Your task to perform on an android device: Empty the shopping cart on newegg.com. Image 0: 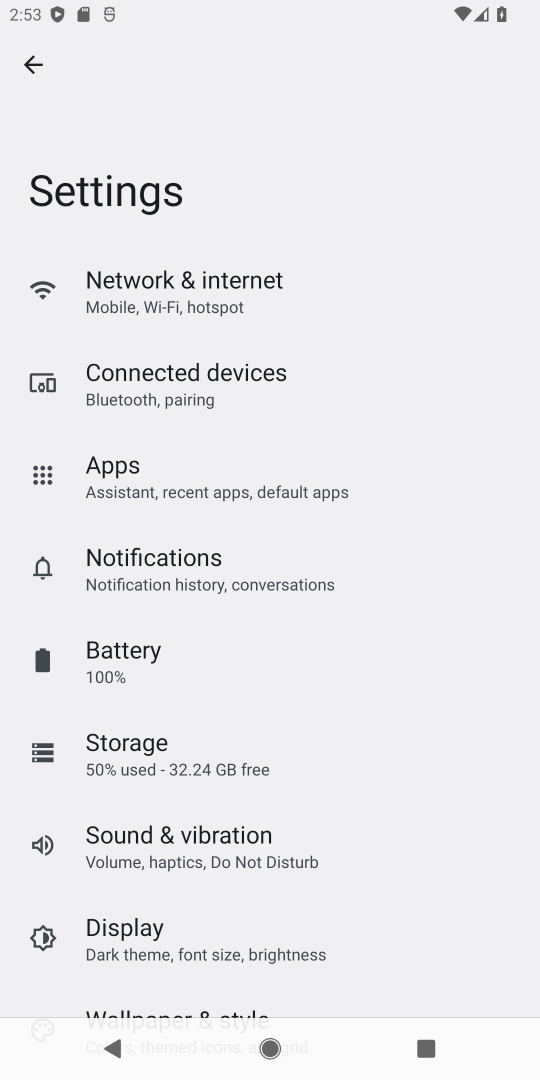
Step 0: press home button
Your task to perform on an android device: Empty the shopping cart on newegg.com. Image 1: 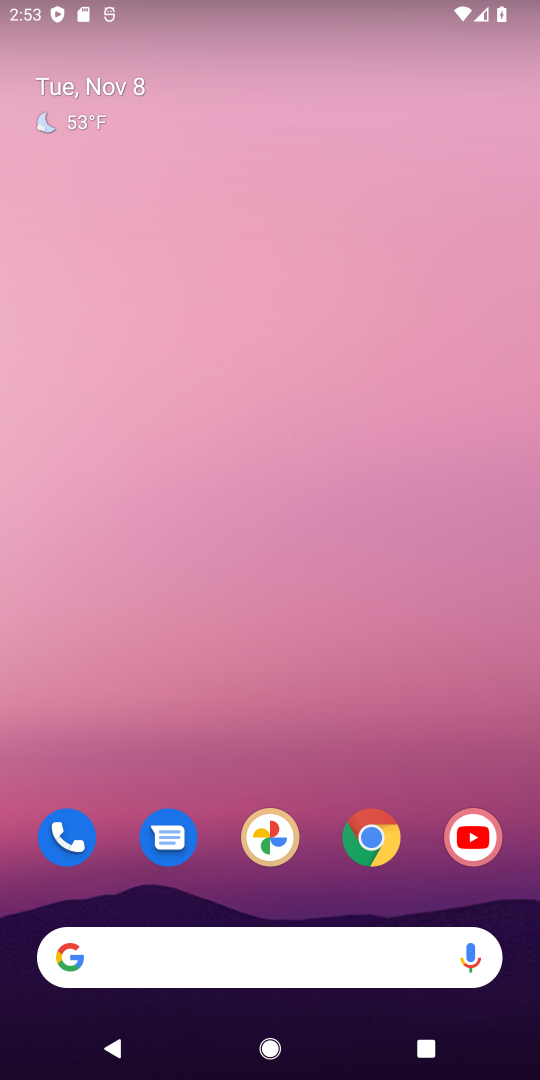
Step 1: click (384, 838)
Your task to perform on an android device: Empty the shopping cart on newegg.com. Image 2: 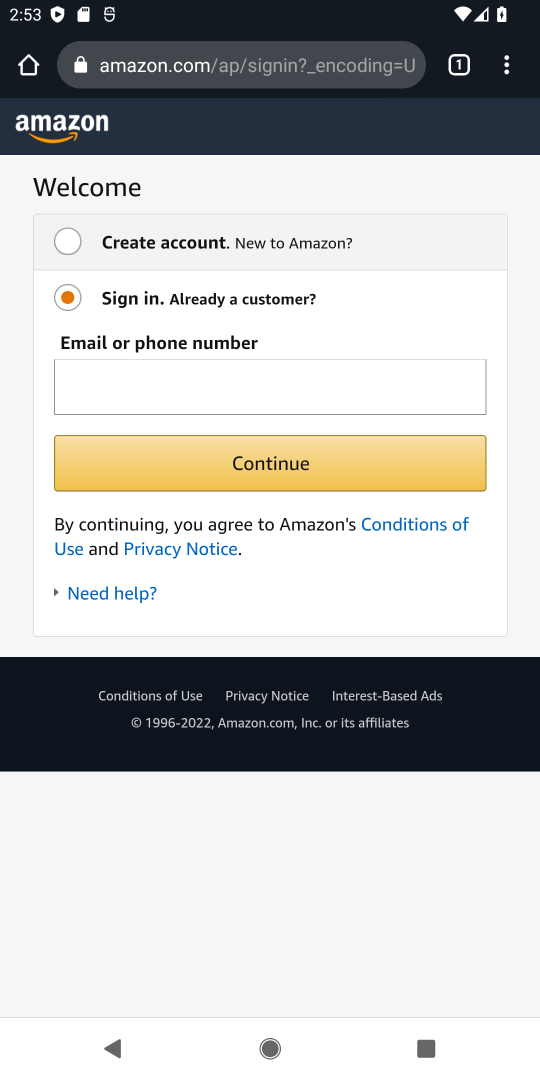
Step 2: click (200, 65)
Your task to perform on an android device: Empty the shopping cart on newegg.com. Image 3: 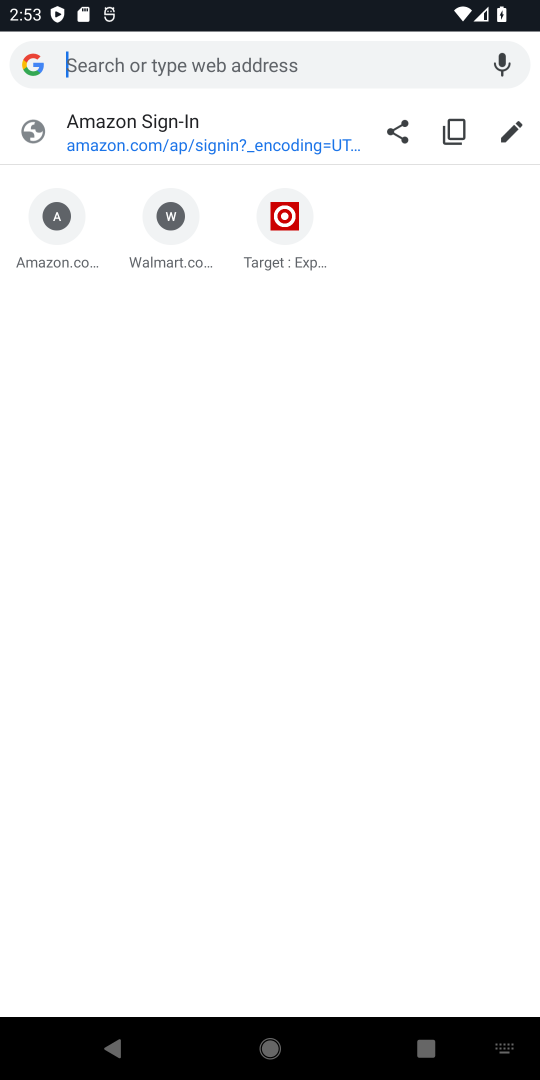
Step 3: type "newegg"
Your task to perform on an android device: Empty the shopping cart on newegg.com. Image 4: 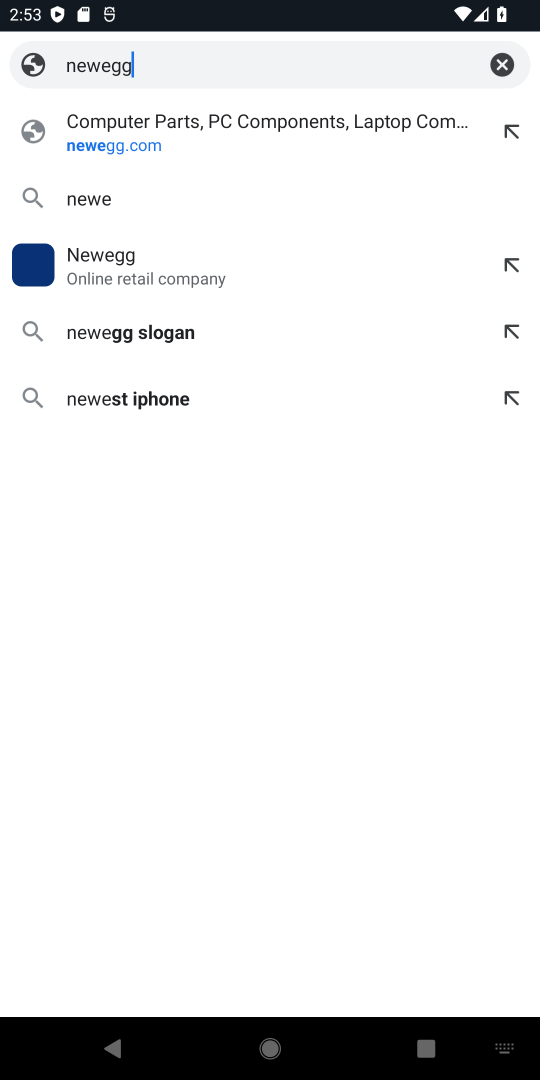
Step 4: type ""
Your task to perform on an android device: Empty the shopping cart on newegg.com. Image 5: 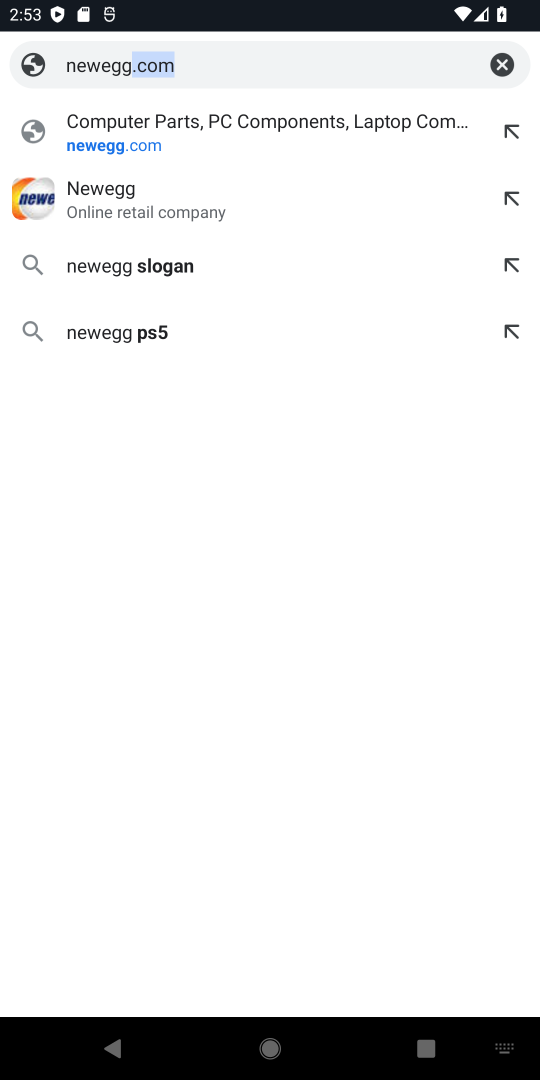
Step 5: click (89, 211)
Your task to perform on an android device: Empty the shopping cart on newegg.com. Image 6: 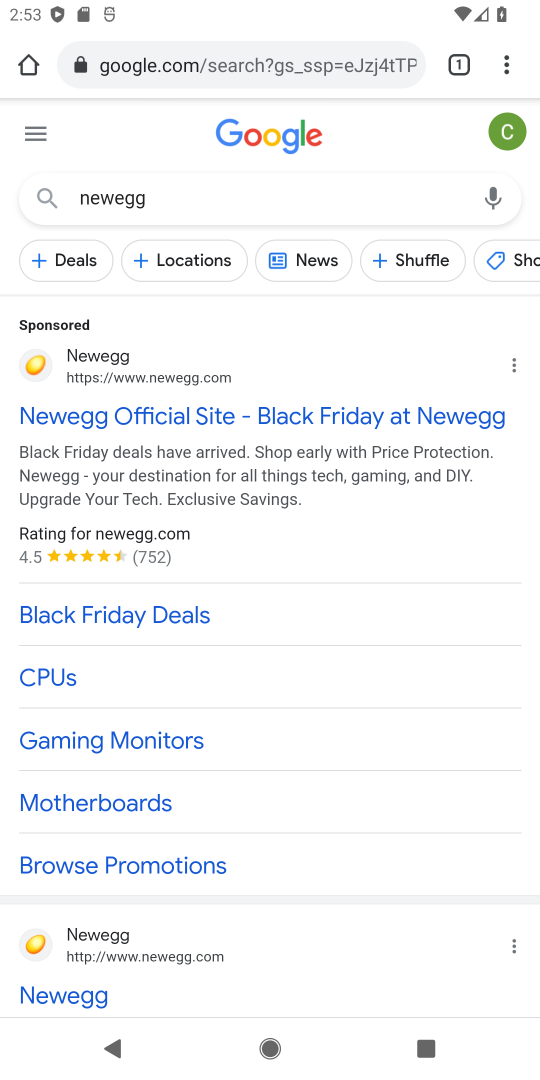
Step 6: click (168, 424)
Your task to perform on an android device: Empty the shopping cart on newegg.com. Image 7: 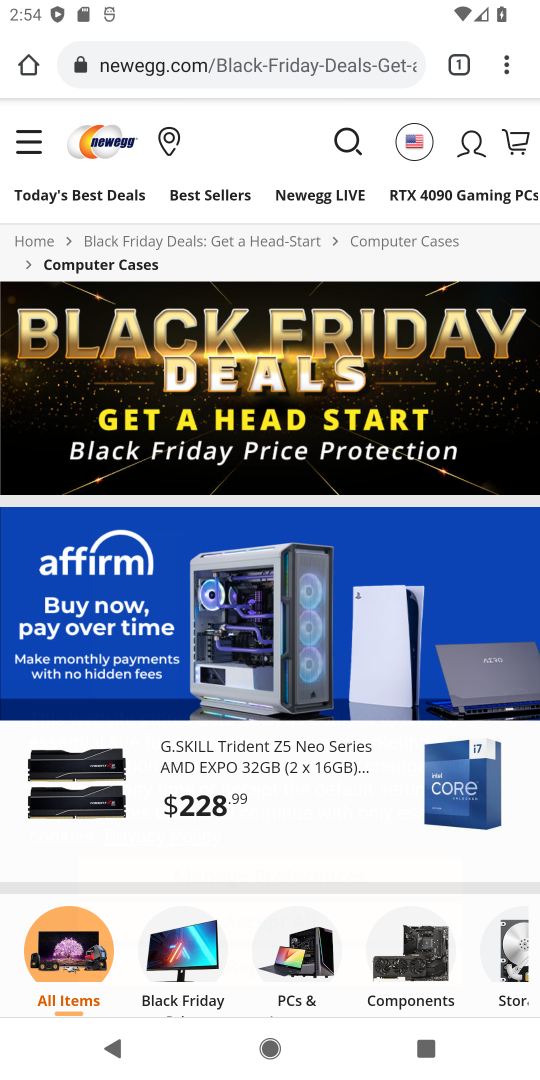
Step 7: click (350, 144)
Your task to perform on an android device: Empty the shopping cart on newegg.com. Image 8: 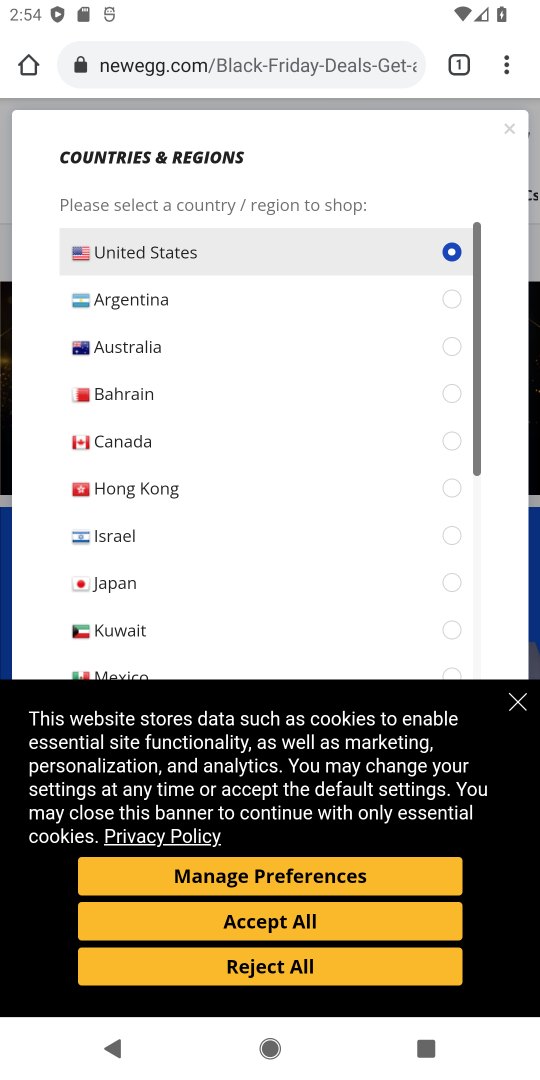
Step 8: click (510, 127)
Your task to perform on an android device: Empty the shopping cart on newegg.com. Image 9: 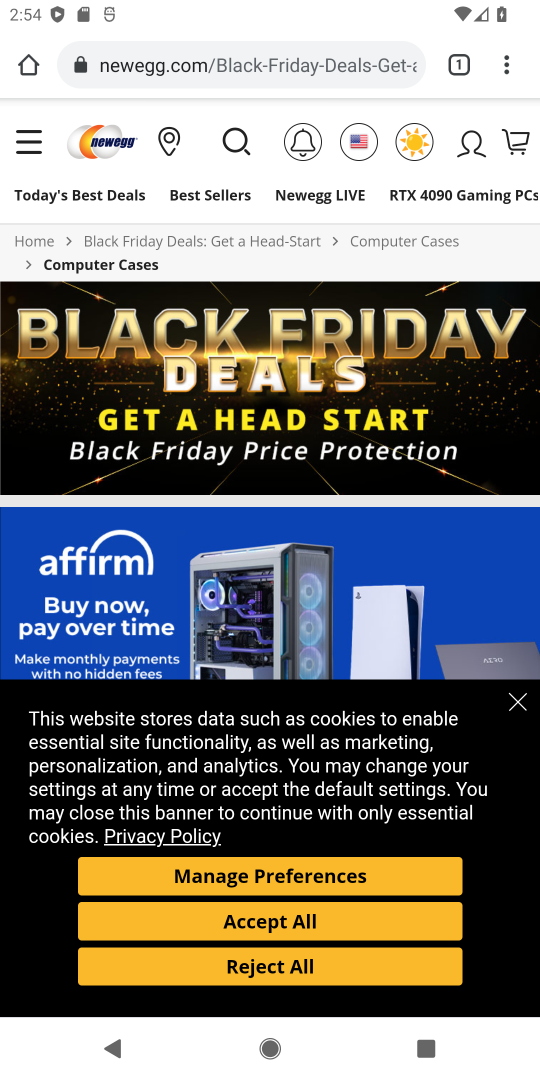
Step 9: click (223, 134)
Your task to perform on an android device: Empty the shopping cart on newegg.com. Image 10: 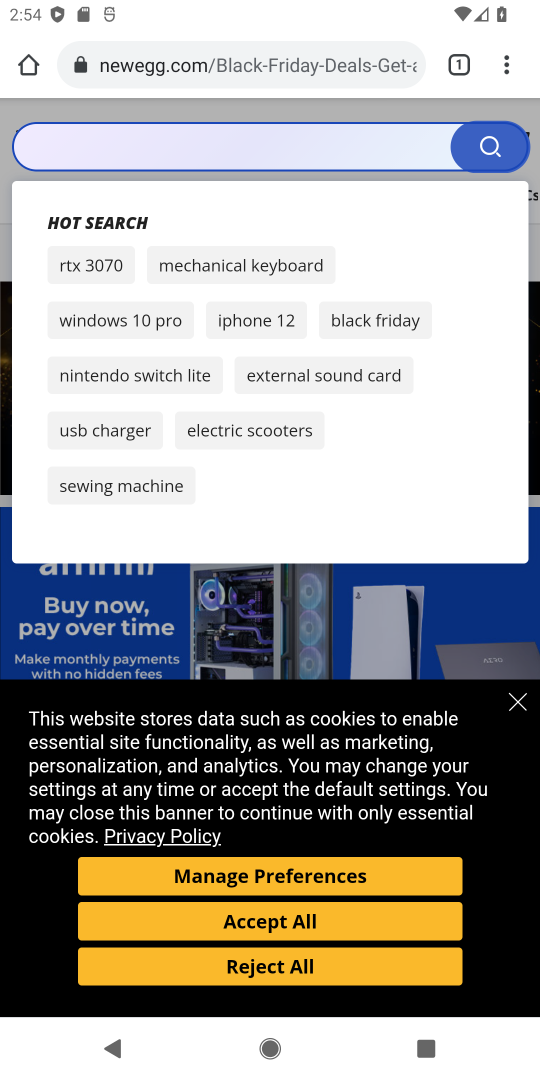
Step 10: click (206, 138)
Your task to perform on an android device: Empty the shopping cart on newegg.com. Image 11: 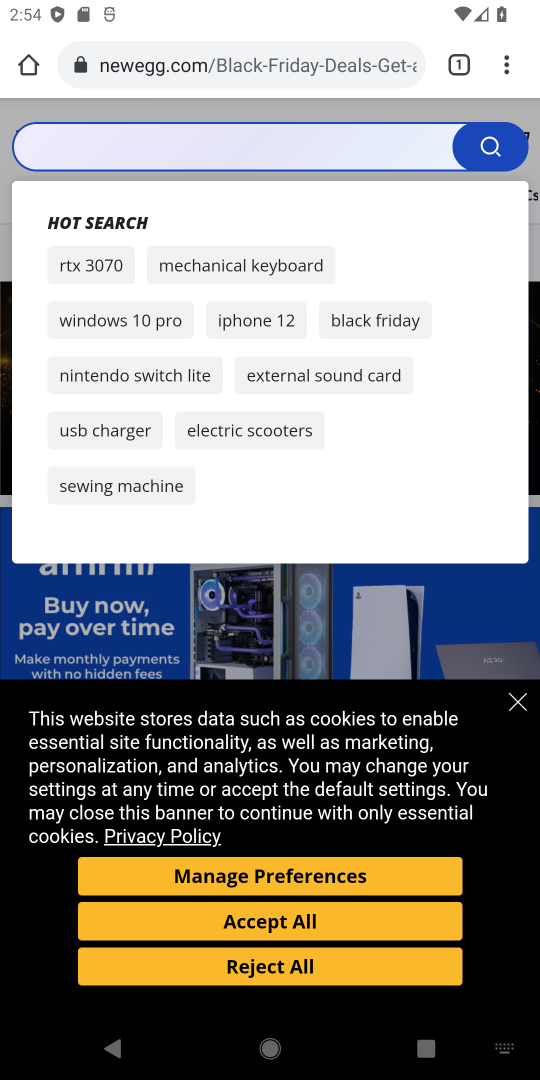
Step 11: click (515, 703)
Your task to perform on an android device: Empty the shopping cart on newegg.com. Image 12: 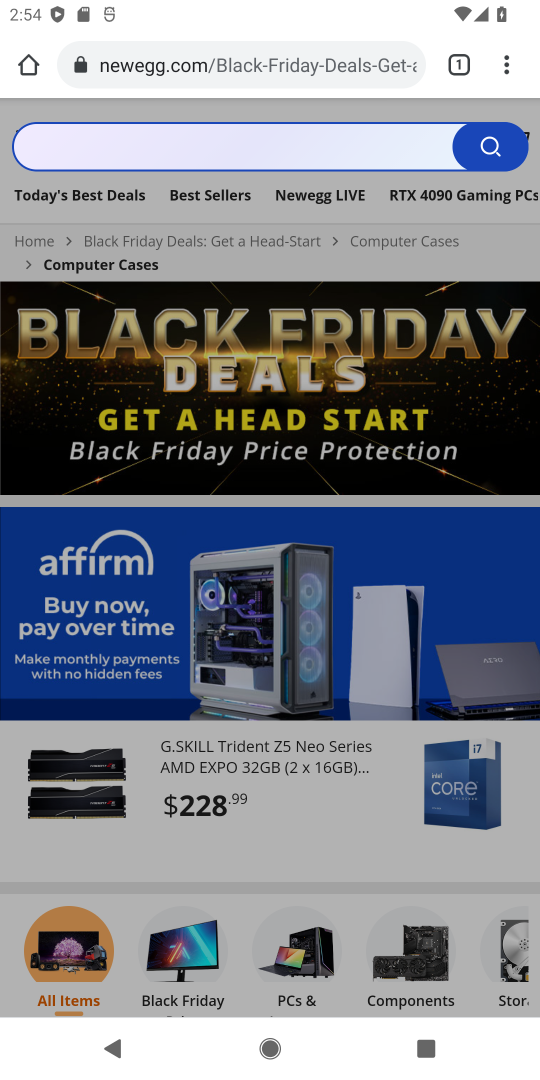
Step 12: press back button
Your task to perform on an android device: Empty the shopping cart on newegg.com. Image 13: 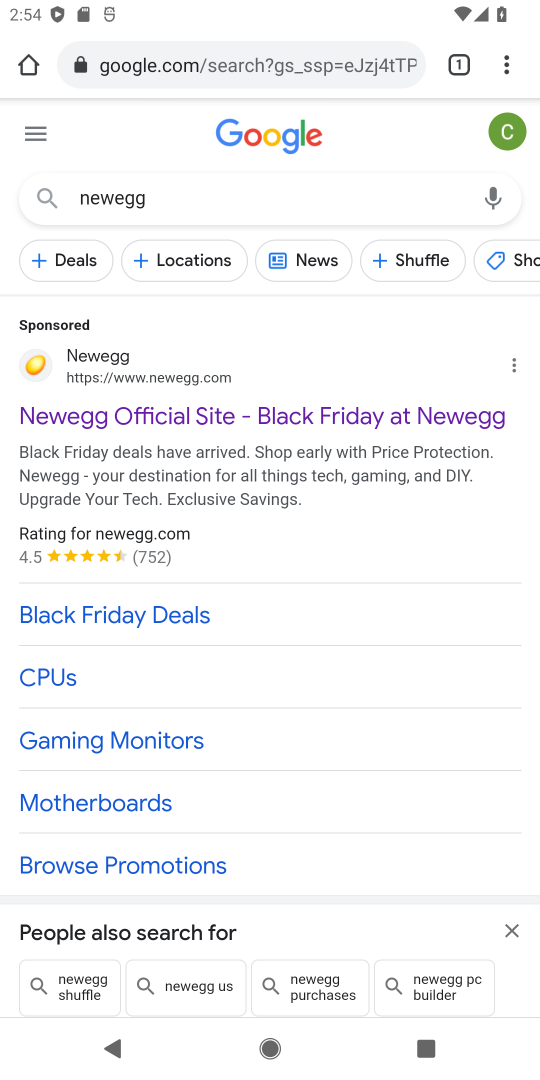
Step 13: drag from (350, 770) to (237, 258)
Your task to perform on an android device: Empty the shopping cart on newegg.com. Image 14: 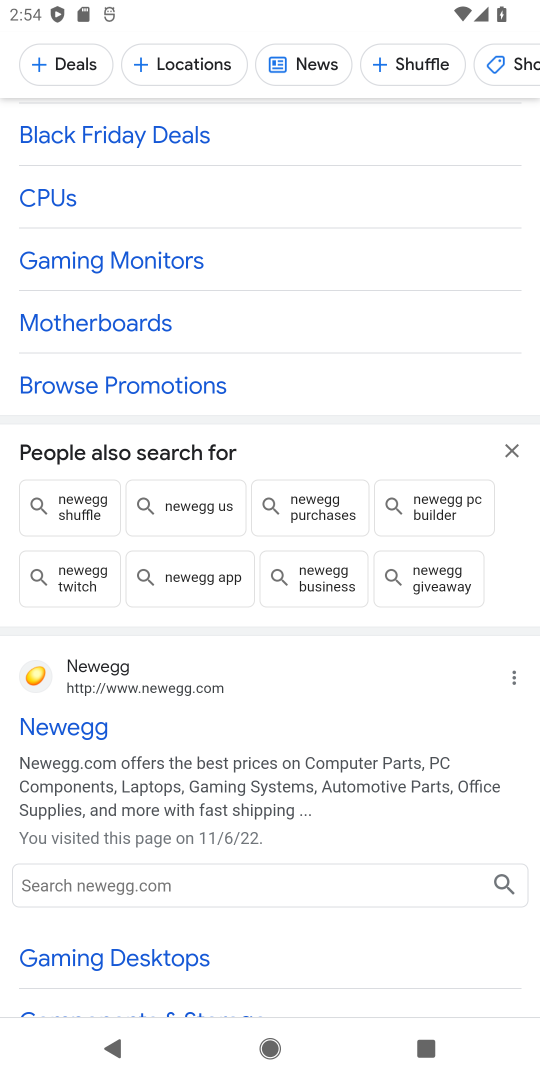
Step 14: click (68, 728)
Your task to perform on an android device: Empty the shopping cart on newegg.com. Image 15: 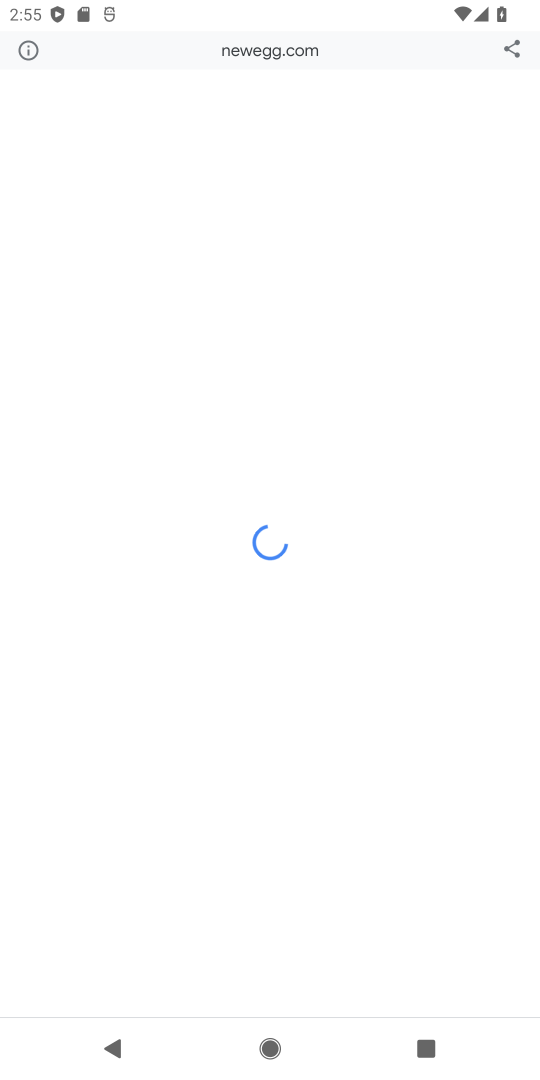
Step 15: press home button
Your task to perform on an android device: Empty the shopping cart on newegg.com. Image 16: 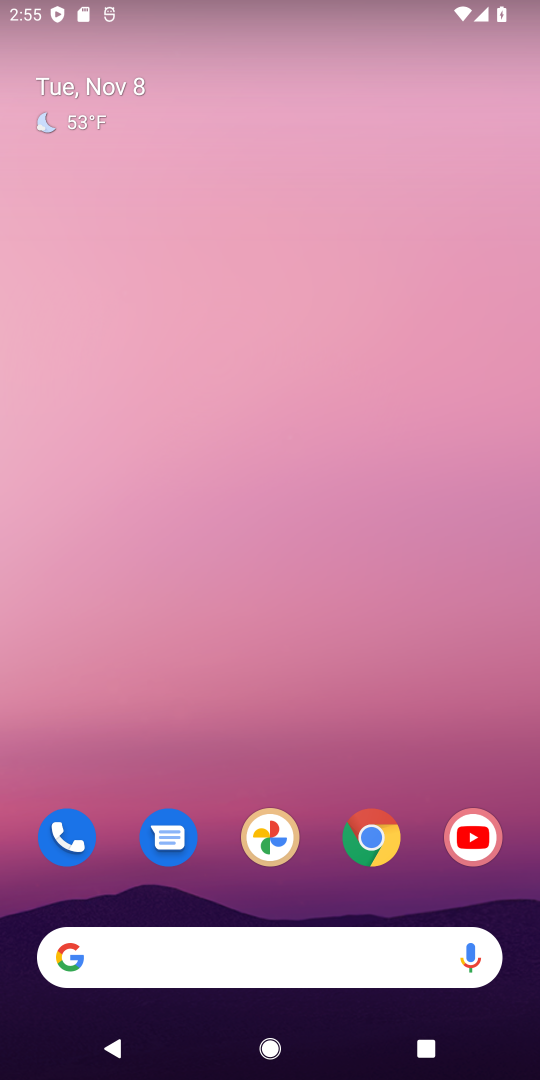
Step 16: click (382, 835)
Your task to perform on an android device: Empty the shopping cart on newegg.com. Image 17: 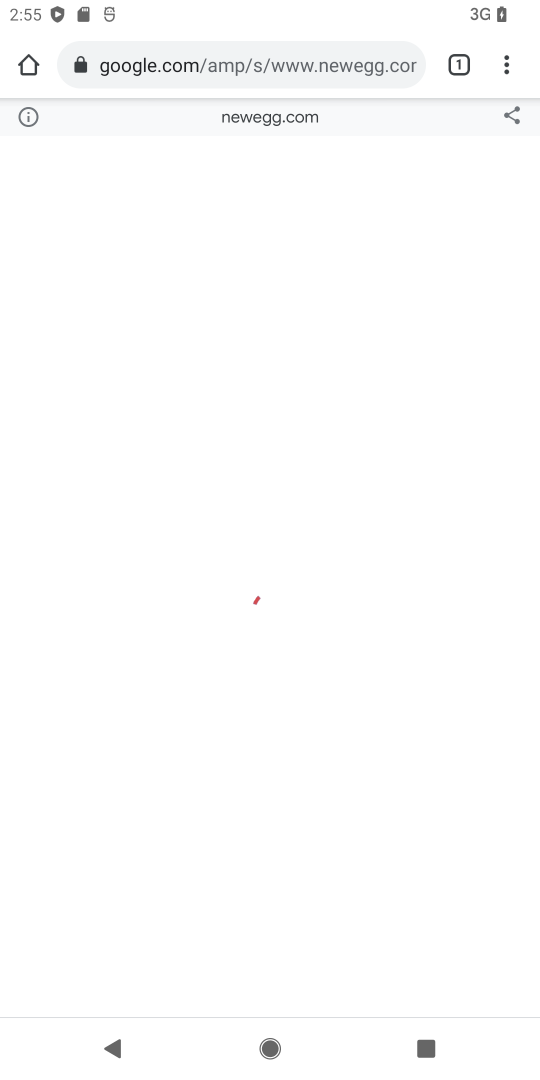
Step 17: click (224, 58)
Your task to perform on an android device: Empty the shopping cart on newegg.com. Image 18: 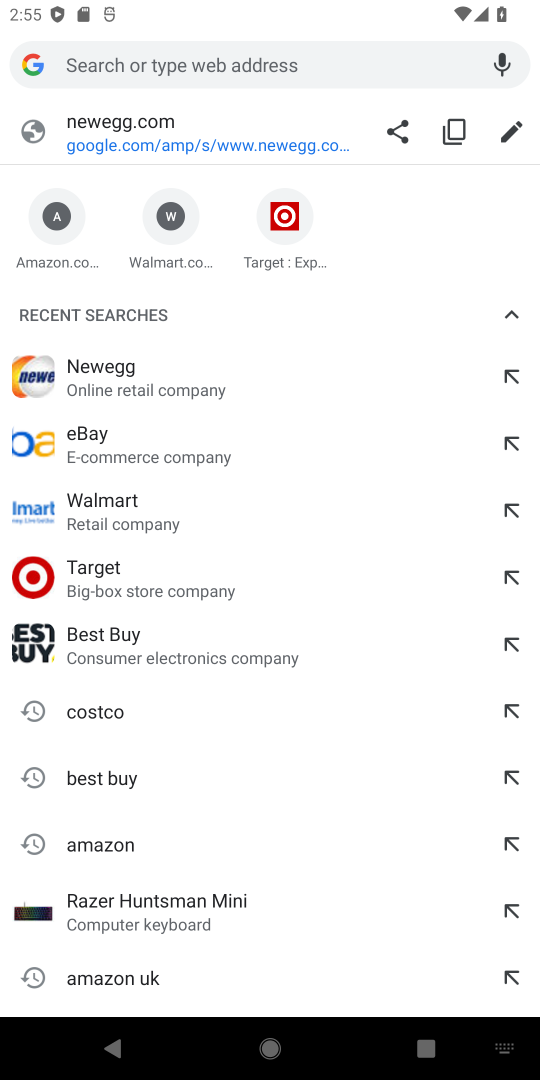
Step 18: type "newegg"
Your task to perform on an android device: Empty the shopping cart on newegg.com. Image 19: 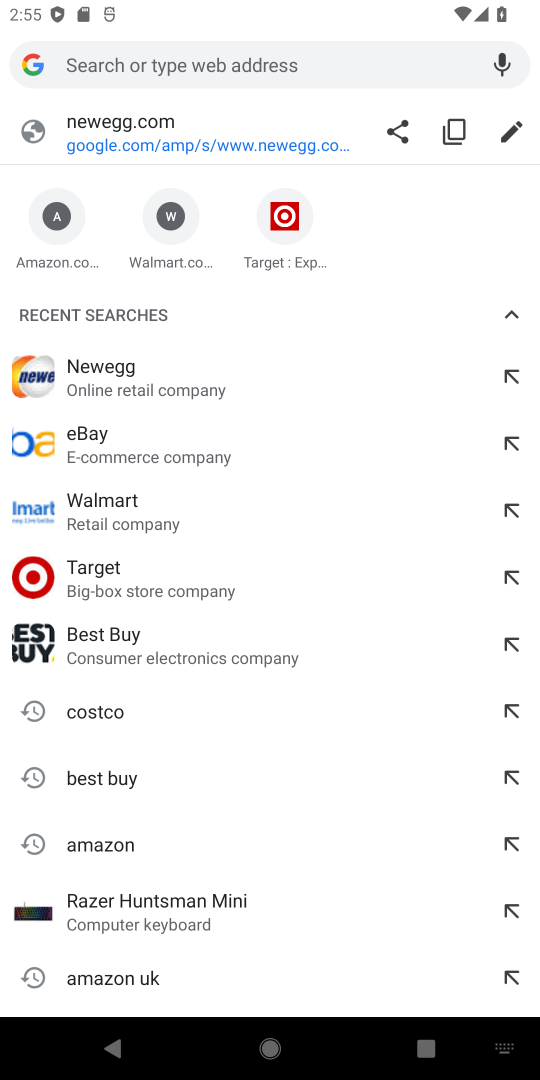
Step 19: click (100, 358)
Your task to perform on an android device: Empty the shopping cart on newegg.com. Image 20: 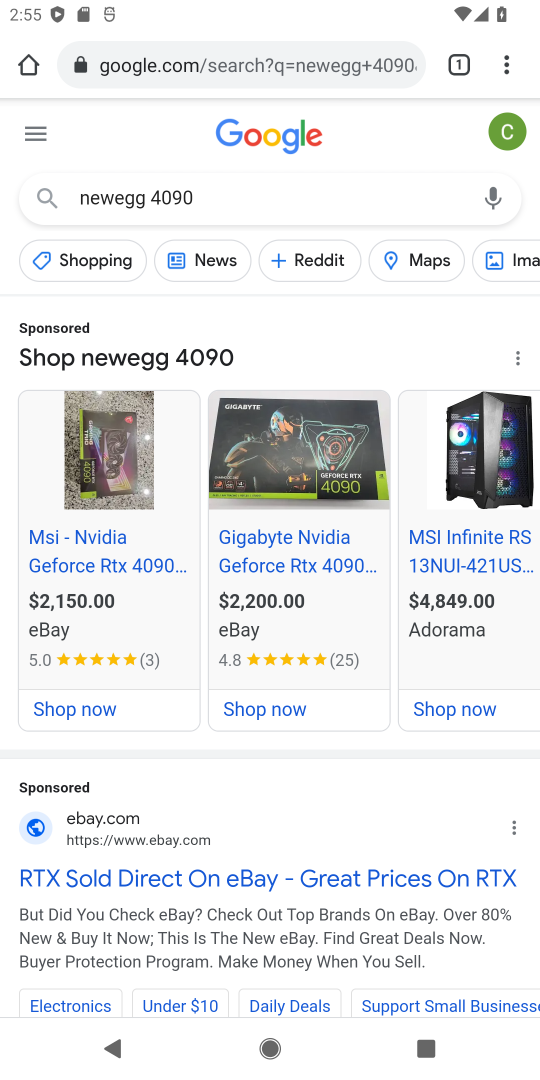
Step 20: drag from (162, 805) to (161, 311)
Your task to perform on an android device: Empty the shopping cart on newegg.com. Image 21: 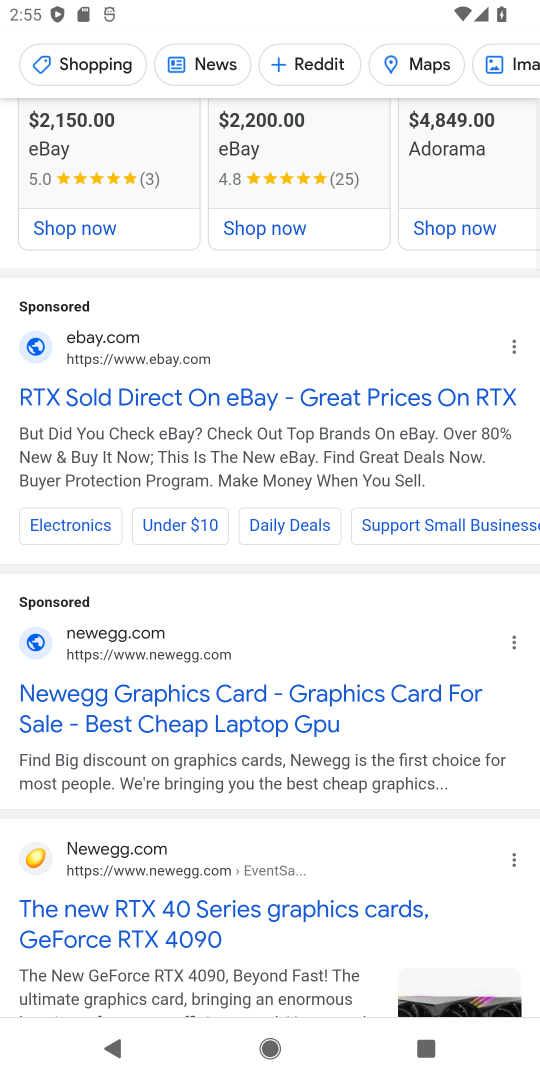
Step 21: drag from (125, 920) to (237, 214)
Your task to perform on an android device: Empty the shopping cart on newegg.com. Image 22: 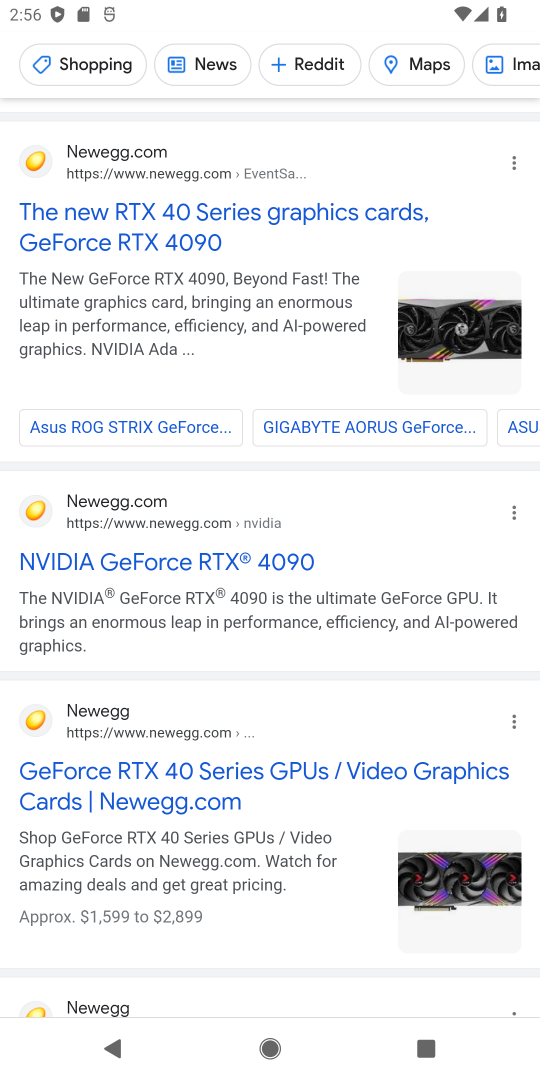
Step 22: drag from (370, 235) to (217, 956)
Your task to perform on an android device: Empty the shopping cart on newegg.com. Image 23: 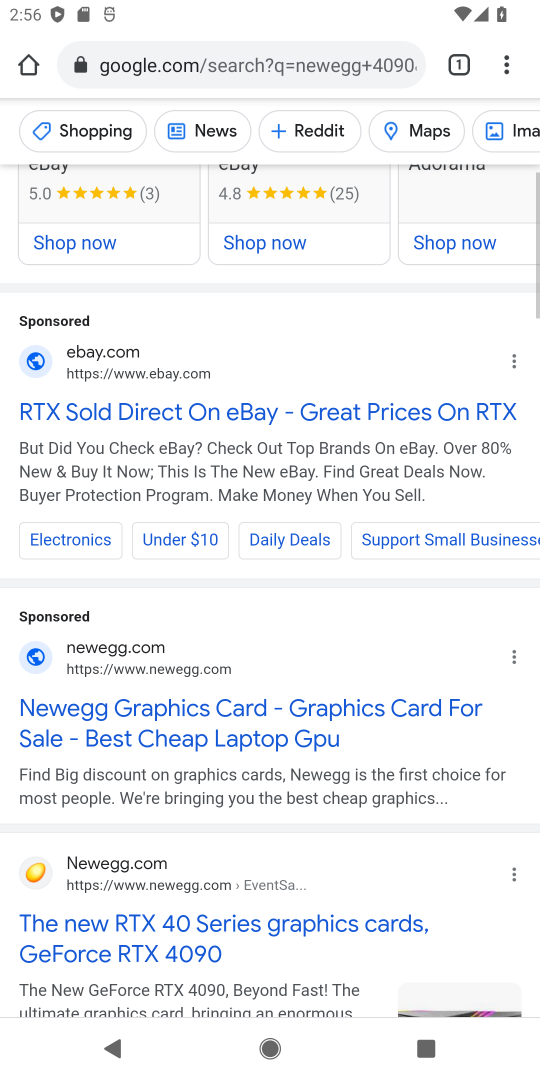
Step 23: drag from (179, 425) to (169, 803)
Your task to perform on an android device: Empty the shopping cart on newegg.com. Image 24: 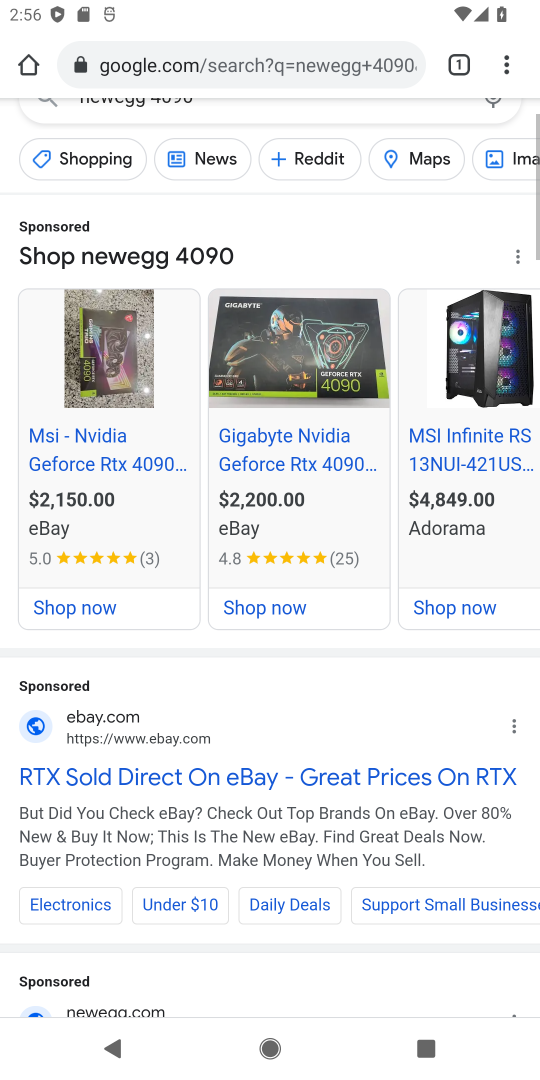
Step 24: click (100, 716)
Your task to perform on an android device: Empty the shopping cart on newegg.com. Image 25: 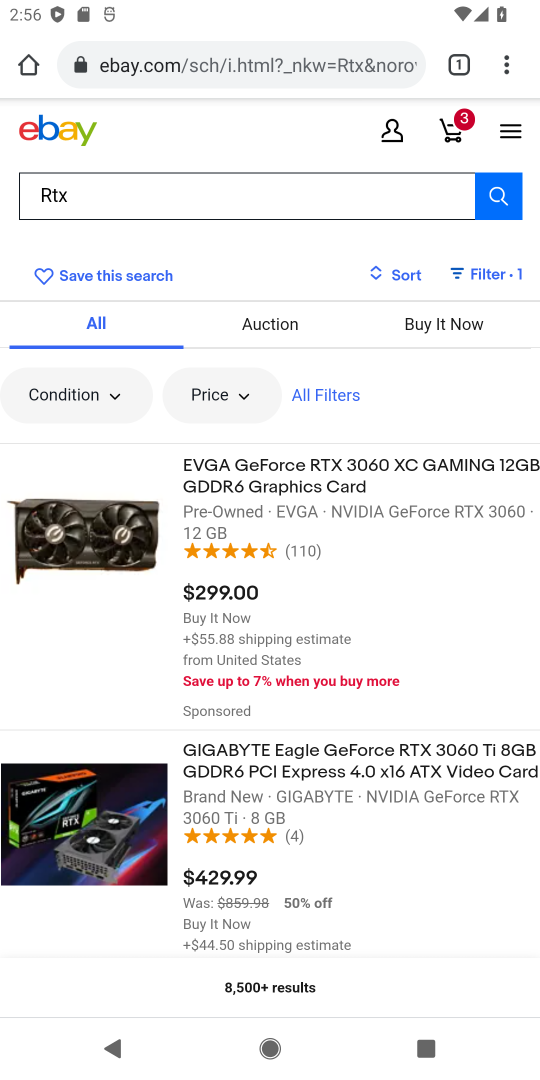
Step 25: click (84, 186)
Your task to perform on an android device: Empty the shopping cart on newegg.com. Image 26: 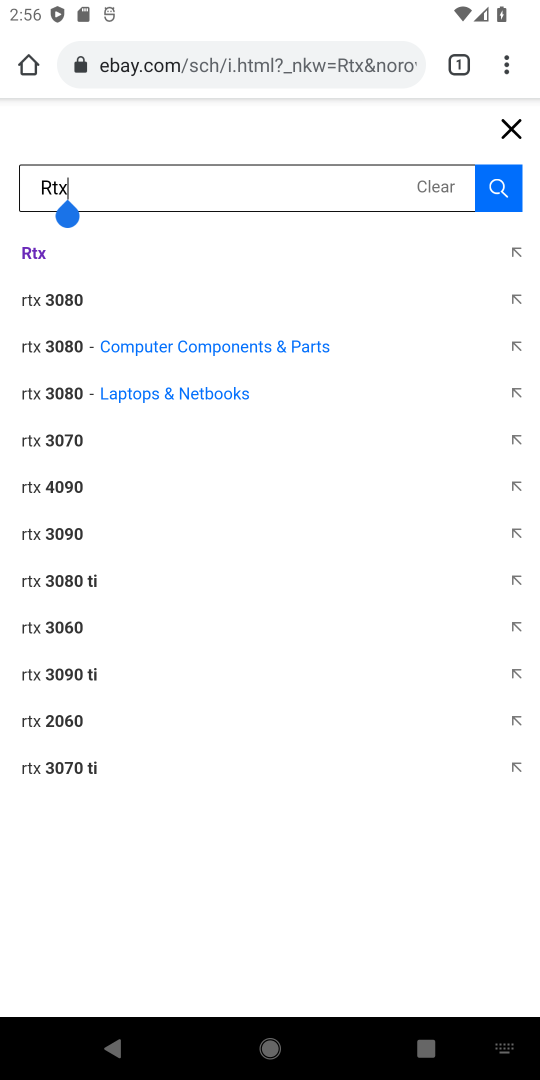
Step 26: press back button
Your task to perform on an android device: Empty the shopping cart on newegg.com. Image 27: 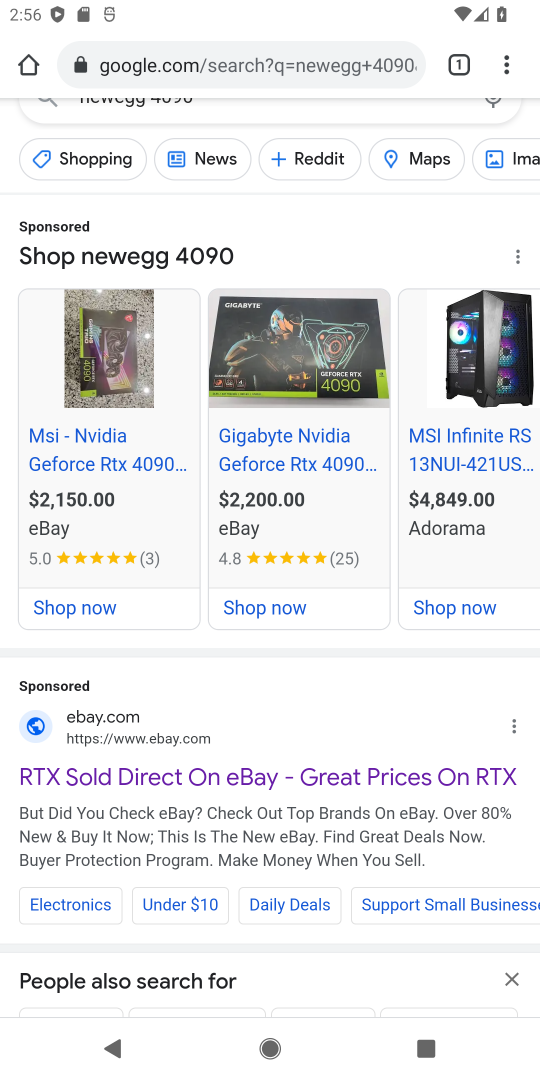
Step 27: click (113, 66)
Your task to perform on an android device: Empty the shopping cart on newegg.com. Image 28: 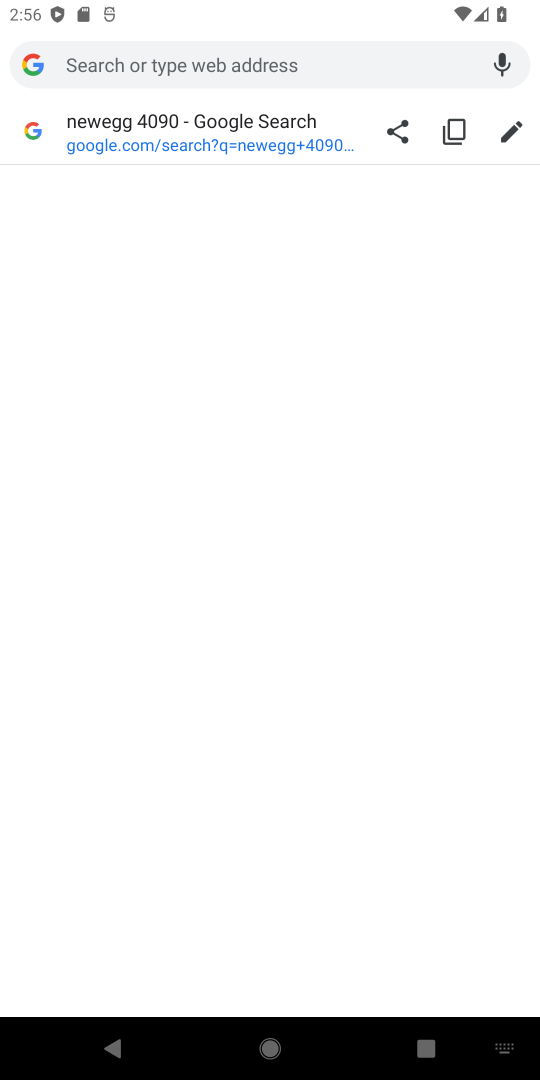
Step 28: type "newegg"
Your task to perform on an android device: Empty the shopping cart on newegg.com. Image 29: 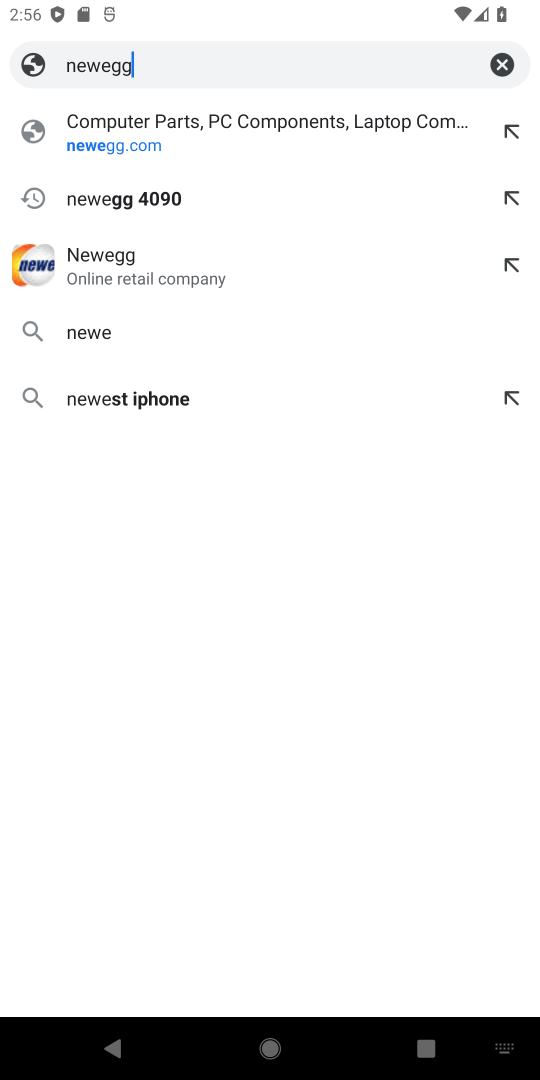
Step 29: type ""
Your task to perform on an android device: Empty the shopping cart on newegg.com. Image 30: 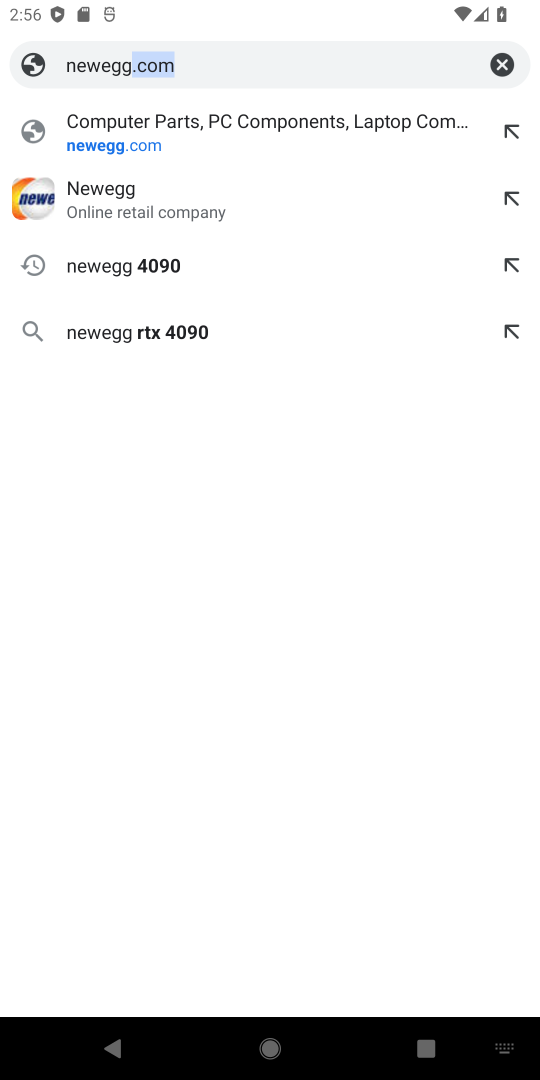
Step 30: click (91, 191)
Your task to perform on an android device: Empty the shopping cart on newegg.com. Image 31: 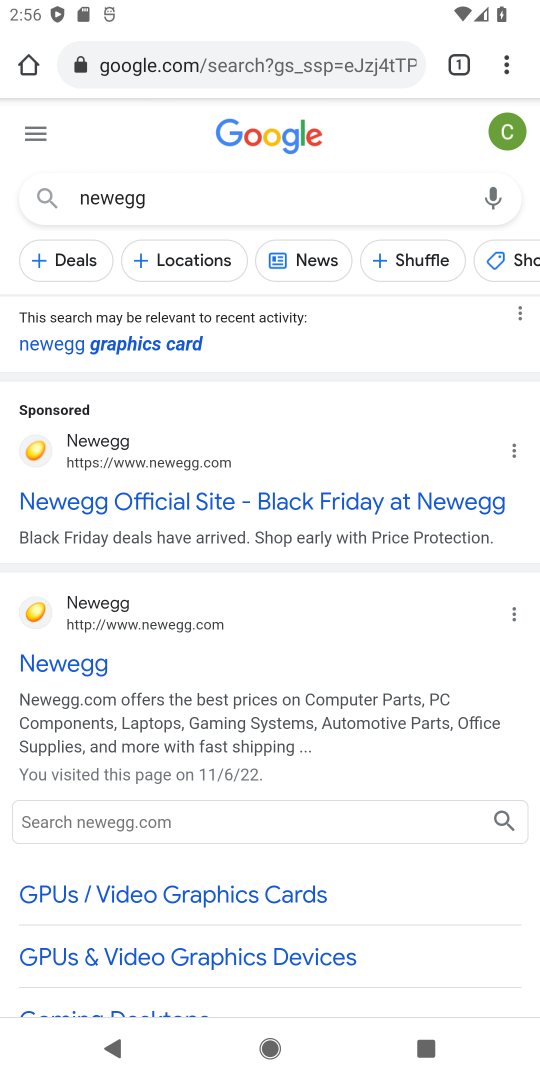
Step 31: click (86, 502)
Your task to perform on an android device: Empty the shopping cart on newegg.com. Image 32: 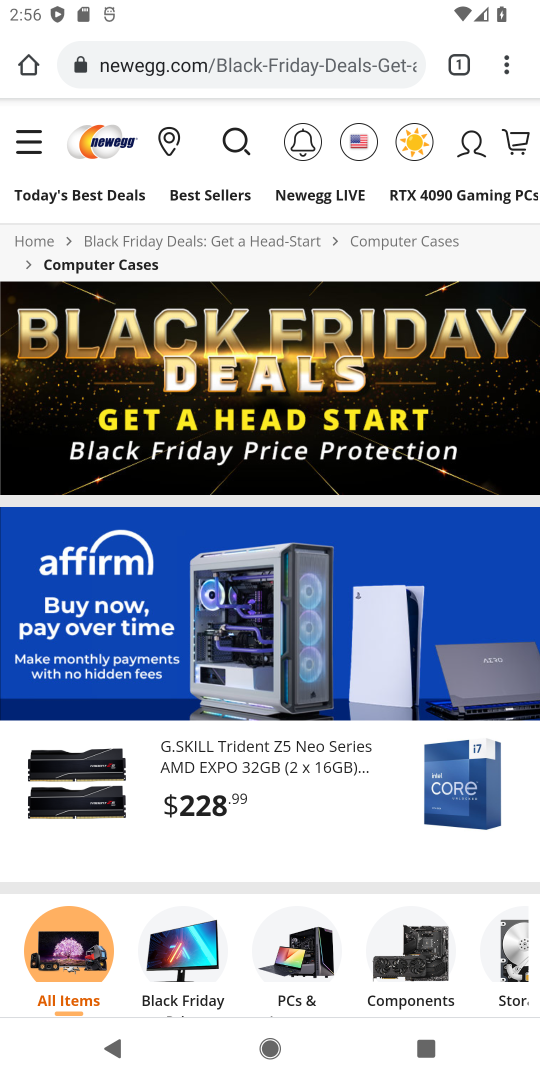
Step 32: click (517, 136)
Your task to perform on an android device: Empty the shopping cart on newegg.com. Image 33: 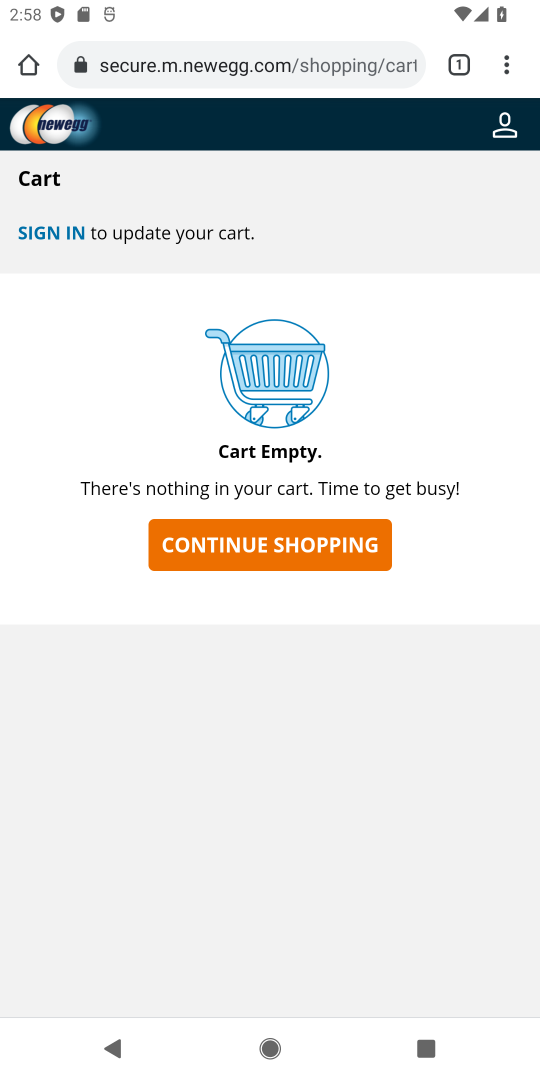
Step 33: task complete